Your task to perform on an android device: turn off smart reply in the gmail app Image 0: 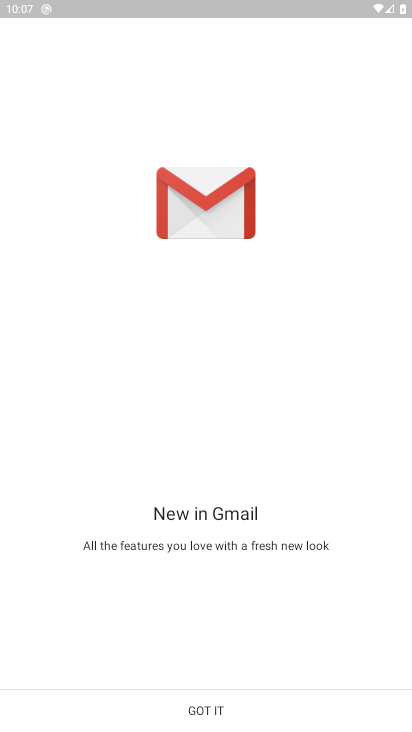
Step 0: press home button
Your task to perform on an android device: turn off smart reply in the gmail app Image 1: 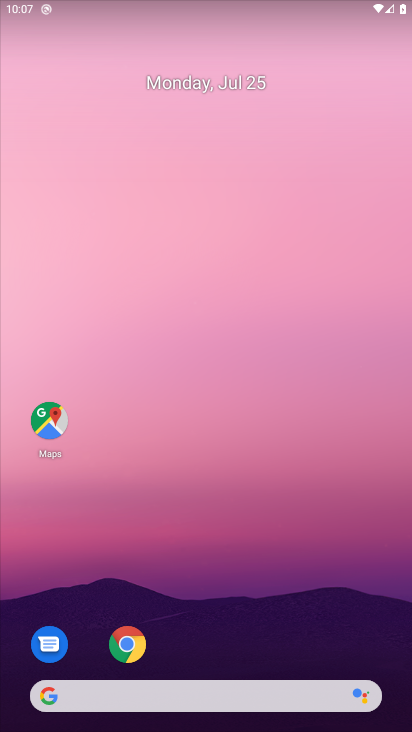
Step 1: drag from (350, 639) to (355, 69)
Your task to perform on an android device: turn off smart reply in the gmail app Image 2: 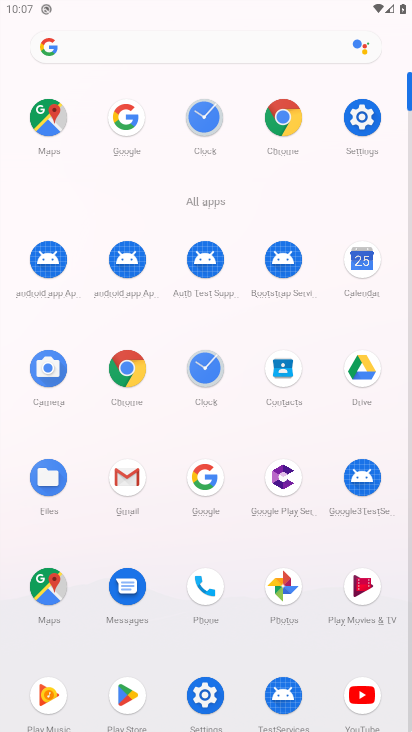
Step 2: click (132, 472)
Your task to perform on an android device: turn off smart reply in the gmail app Image 3: 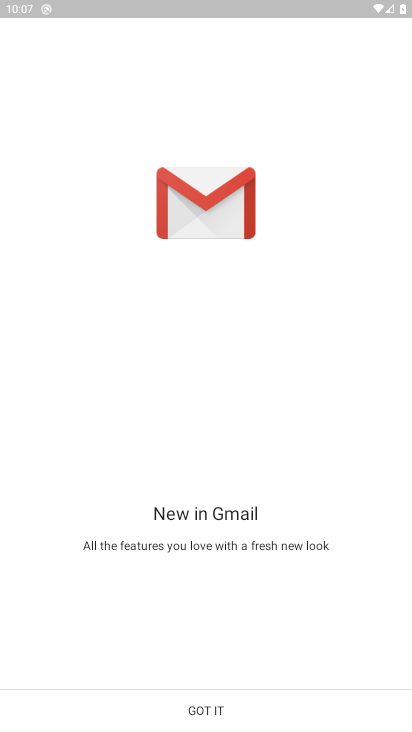
Step 3: click (211, 704)
Your task to perform on an android device: turn off smart reply in the gmail app Image 4: 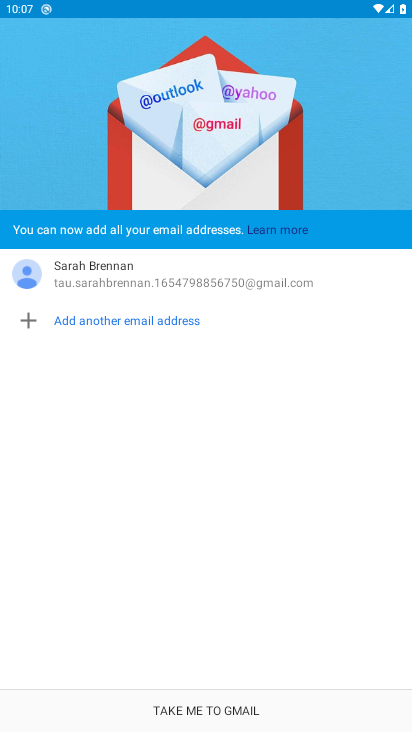
Step 4: click (265, 702)
Your task to perform on an android device: turn off smart reply in the gmail app Image 5: 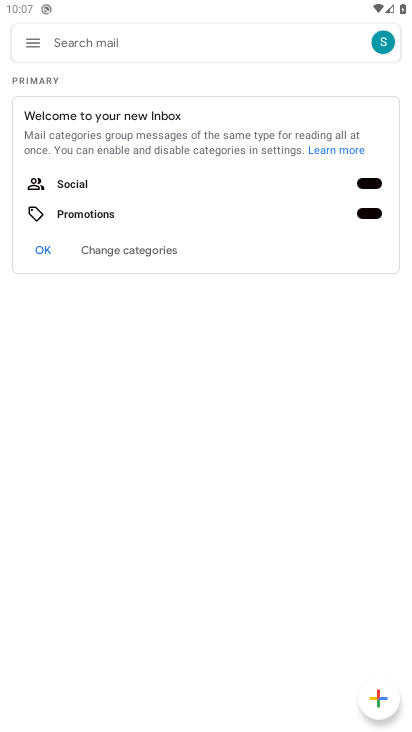
Step 5: click (38, 43)
Your task to perform on an android device: turn off smart reply in the gmail app Image 6: 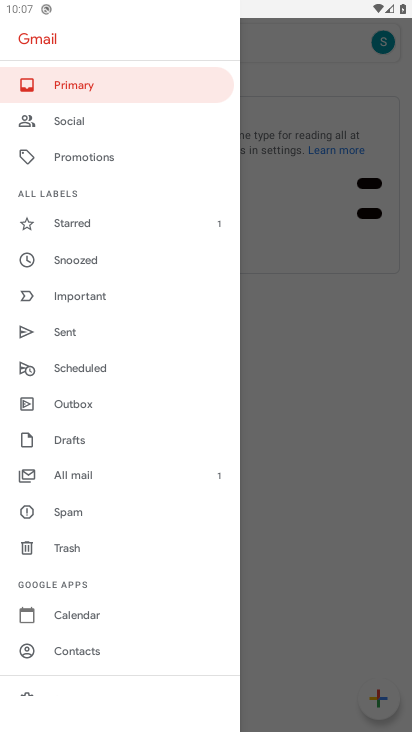
Step 6: drag from (181, 601) to (198, 296)
Your task to perform on an android device: turn off smart reply in the gmail app Image 7: 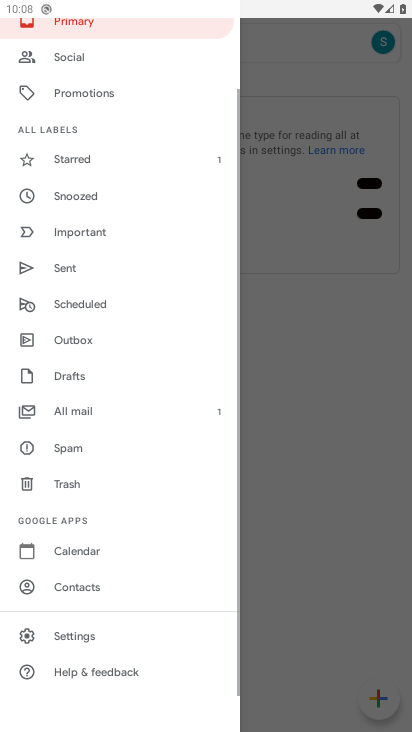
Step 7: click (66, 627)
Your task to perform on an android device: turn off smart reply in the gmail app Image 8: 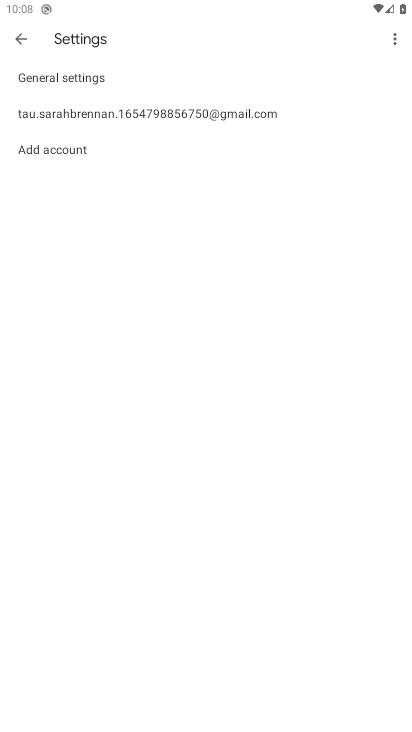
Step 8: click (170, 117)
Your task to perform on an android device: turn off smart reply in the gmail app Image 9: 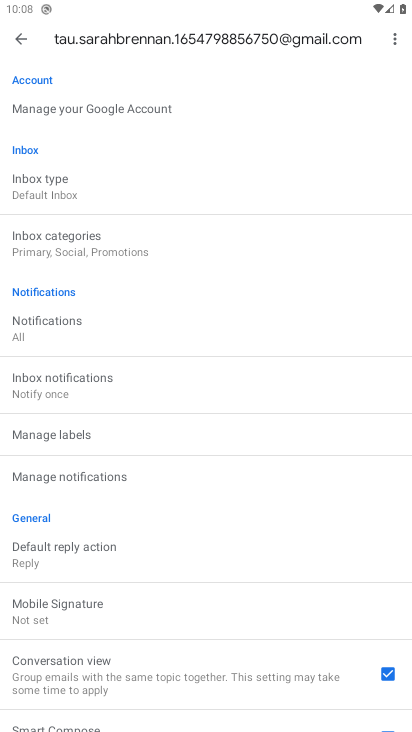
Step 9: drag from (136, 598) to (220, 259)
Your task to perform on an android device: turn off smart reply in the gmail app Image 10: 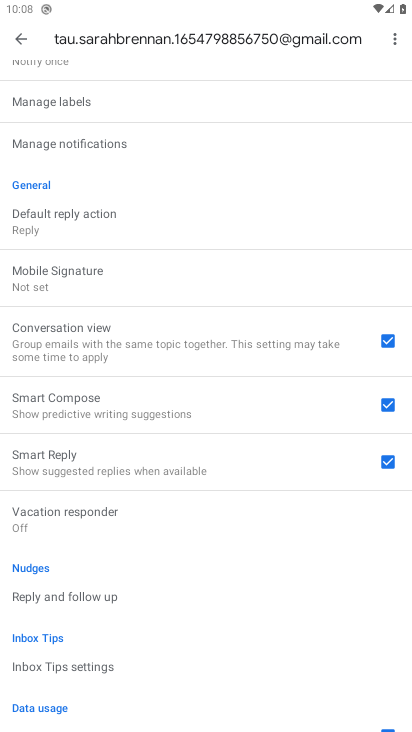
Step 10: click (358, 465)
Your task to perform on an android device: turn off smart reply in the gmail app Image 11: 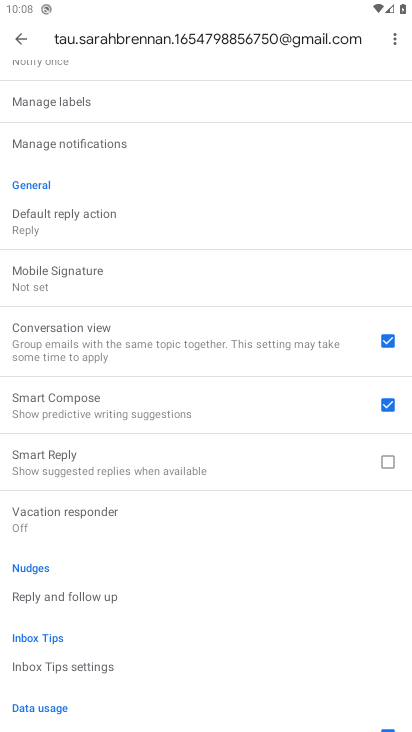
Step 11: task complete